Your task to perform on an android device: Is it going to rain this weekend? Image 0: 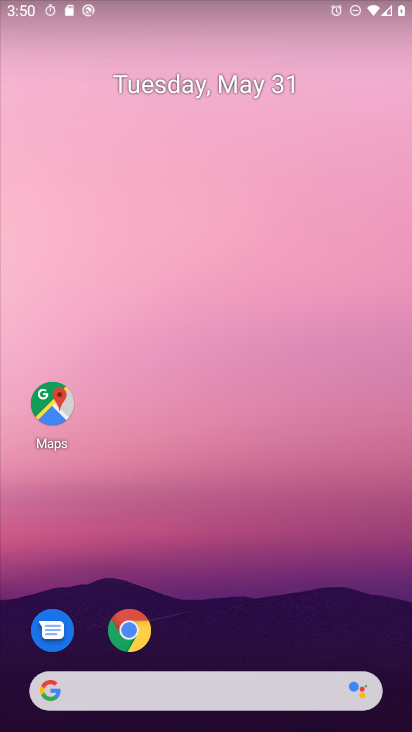
Step 0: drag from (30, 231) to (410, 219)
Your task to perform on an android device: Is it going to rain this weekend? Image 1: 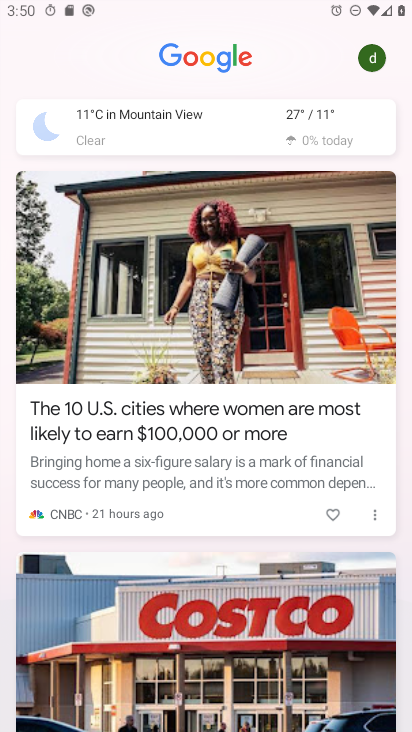
Step 1: click (205, 133)
Your task to perform on an android device: Is it going to rain this weekend? Image 2: 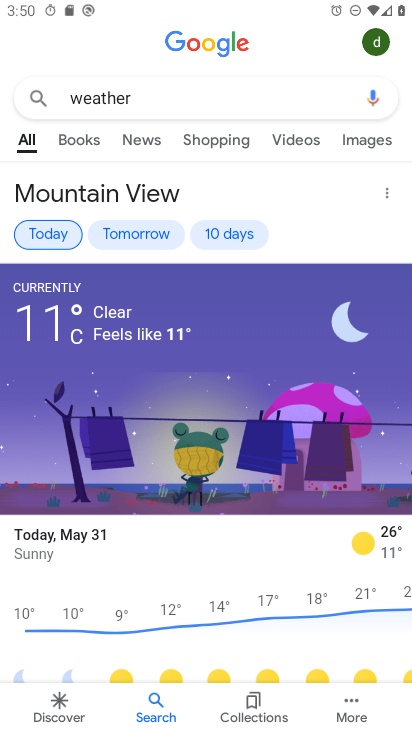
Step 2: click (234, 235)
Your task to perform on an android device: Is it going to rain this weekend? Image 3: 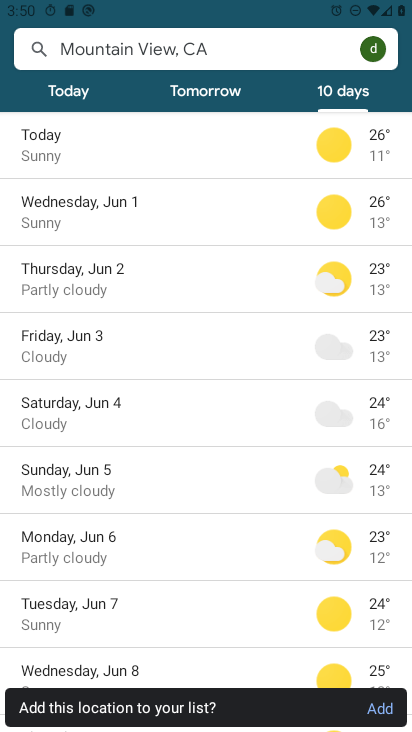
Step 3: task complete